Your task to perform on an android device: turn off javascript in the chrome app Image 0: 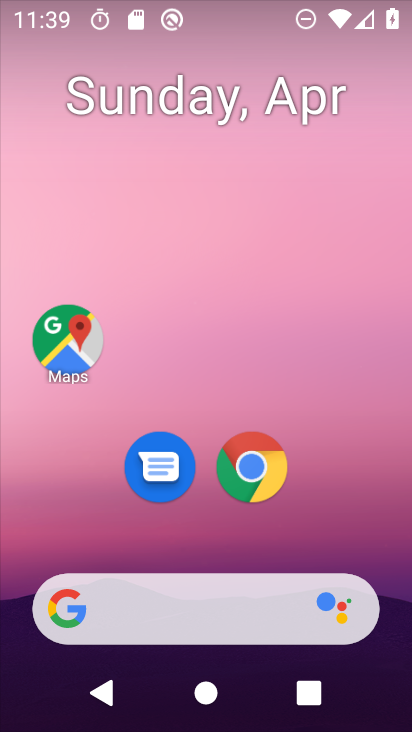
Step 0: drag from (383, 511) to (376, 146)
Your task to perform on an android device: turn off javascript in the chrome app Image 1: 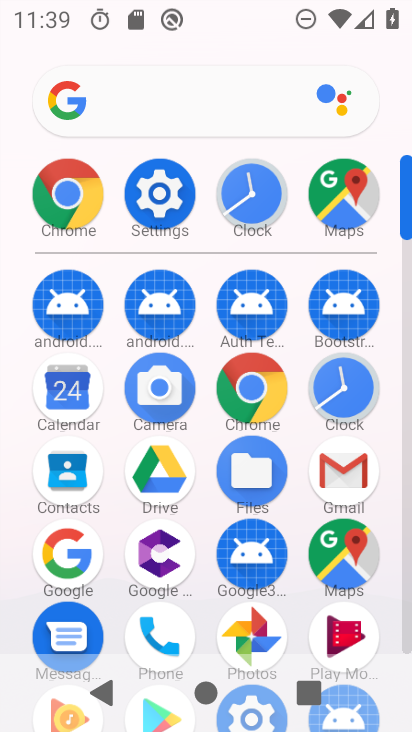
Step 1: click (267, 394)
Your task to perform on an android device: turn off javascript in the chrome app Image 2: 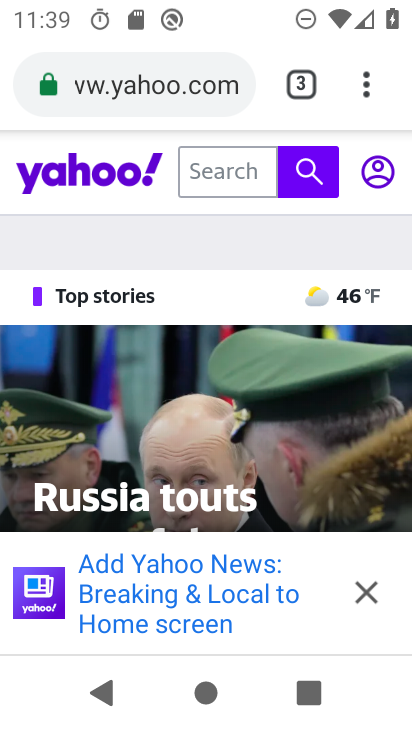
Step 2: click (368, 72)
Your task to perform on an android device: turn off javascript in the chrome app Image 3: 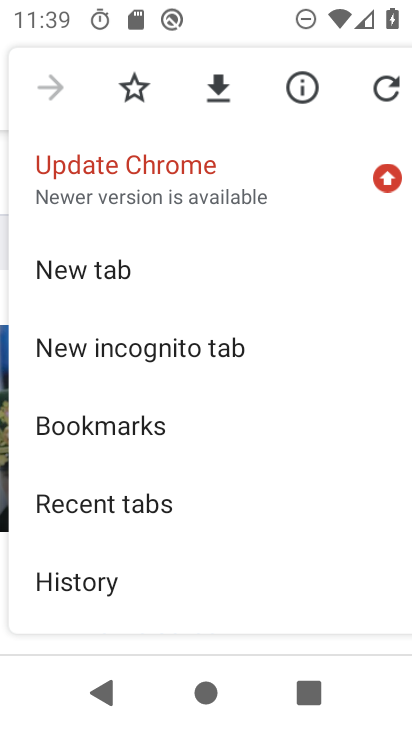
Step 3: drag from (330, 521) to (318, 395)
Your task to perform on an android device: turn off javascript in the chrome app Image 4: 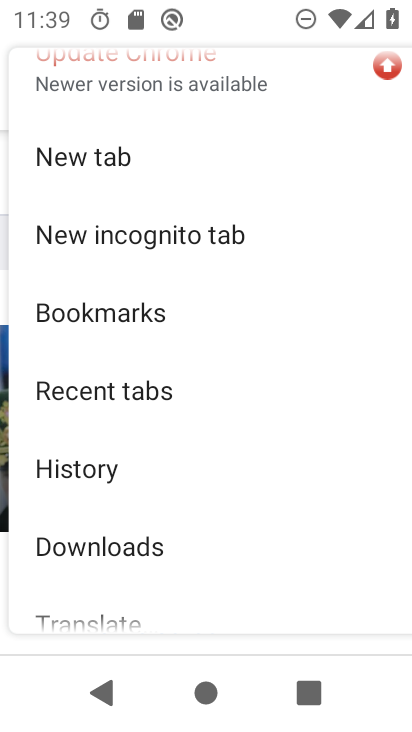
Step 4: drag from (337, 537) to (340, 422)
Your task to perform on an android device: turn off javascript in the chrome app Image 5: 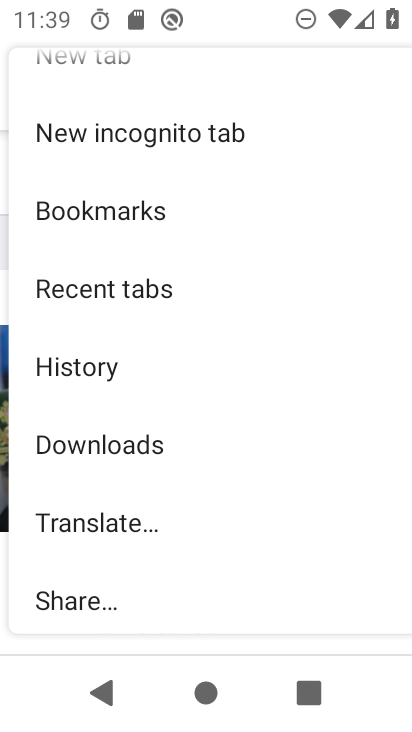
Step 5: drag from (325, 537) to (333, 419)
Your task to perform on an android device: turn off javascript in the chrome app Image 6: 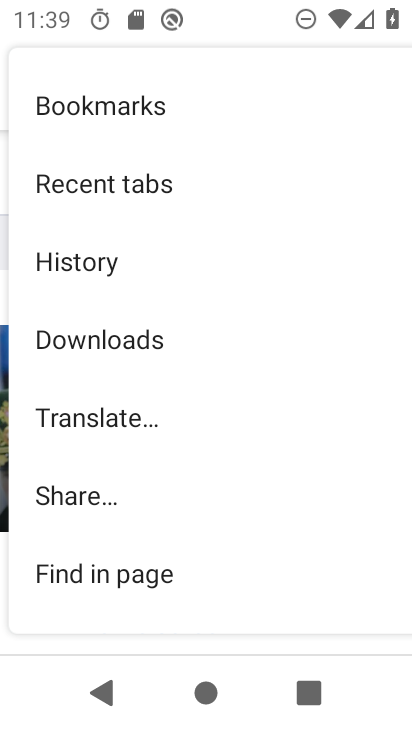
Step 6: drag from (315, 565) to (316, 413)
Your task to perform on an android device: turn off javascript in the chrome app Image 7: 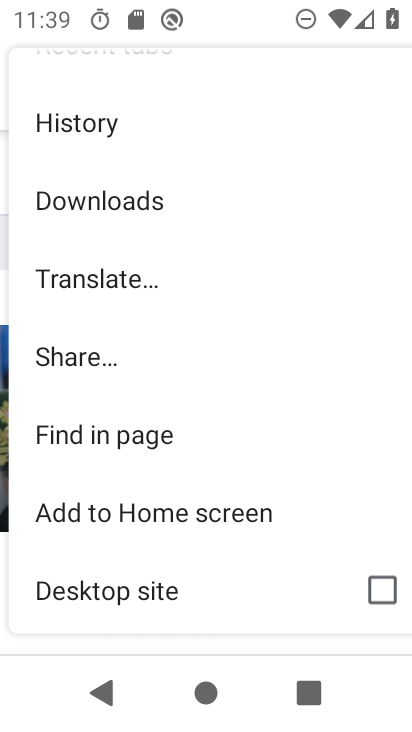
Step 7: drag from (280, 570) to (279, 370)
Your task to perform on an android device: turn off javascript in the chrome app Image 8: 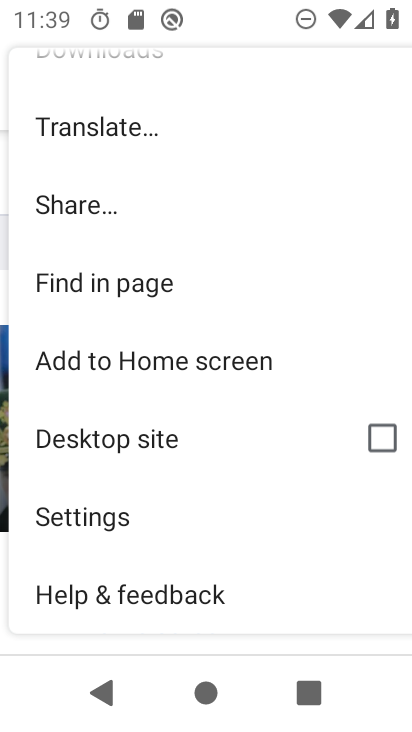
Step 8: click (114, 534)
Your task to perform on an android device: turn off javascript in the chrome app Image 9: 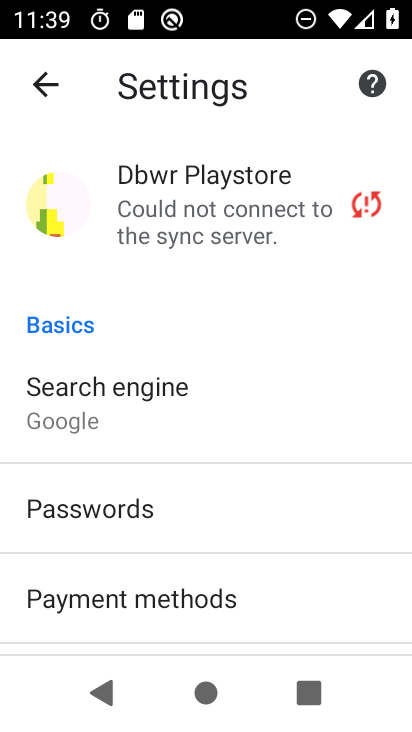
Step 9: drag from (281, 556) to (298, 372)
Your task to perform on an android device: turn off javascript in the chrome app Image 10: 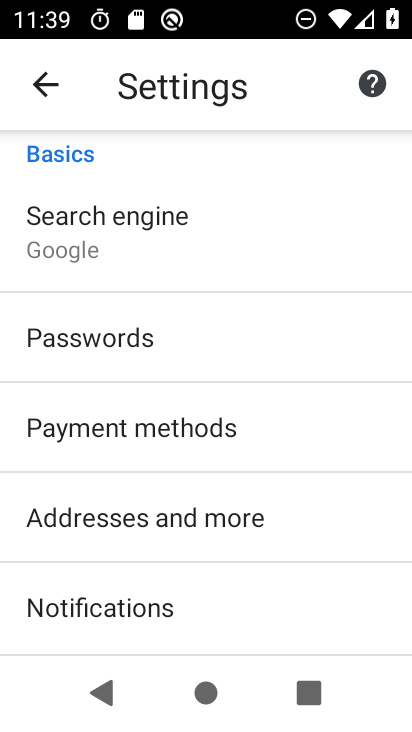
Step 10: drag from (307, 597) to (319, 407)
Your task to perform on an android device: turn off javascript in the chrome app Image 11: 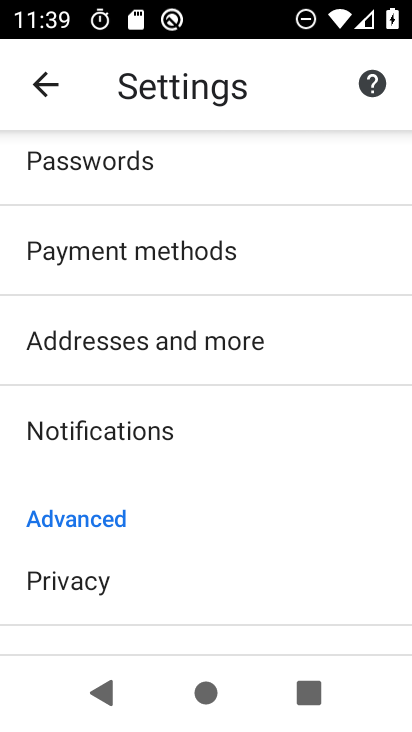
Step 11: drag from (298, 562) to (341, 361)
Your task to perform on an android device: turn off javascript in the chrome app Image 12: 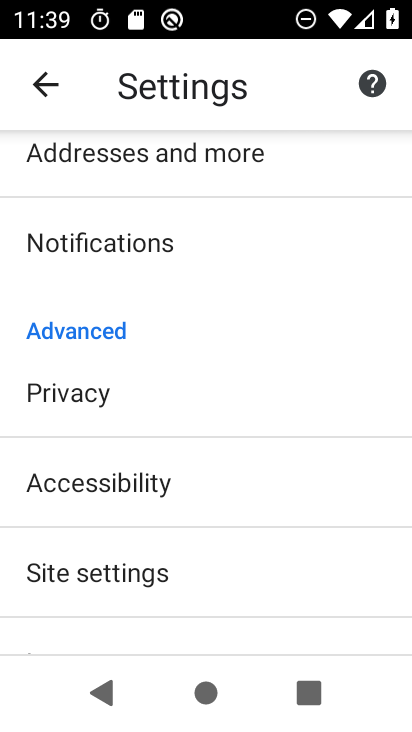
Step 12: drag from (292, 568) to (292, 441)
Your task to perform on an android device: turn off javascript in the chrome app Image 13: 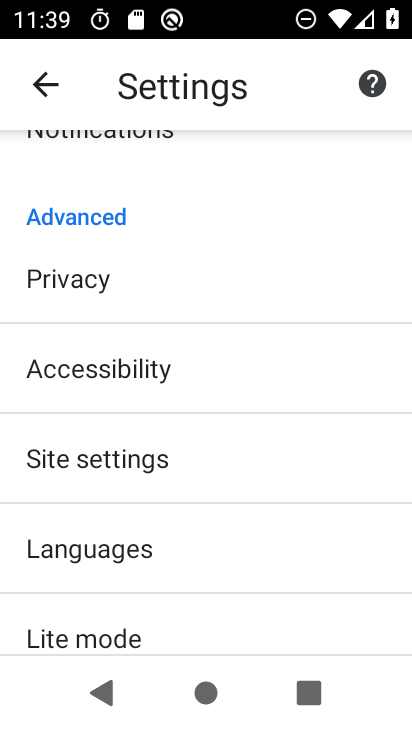
Step 13: click (273, 475)
Your task to perform on an android device: turn off javascript in the chrome app Image 14: 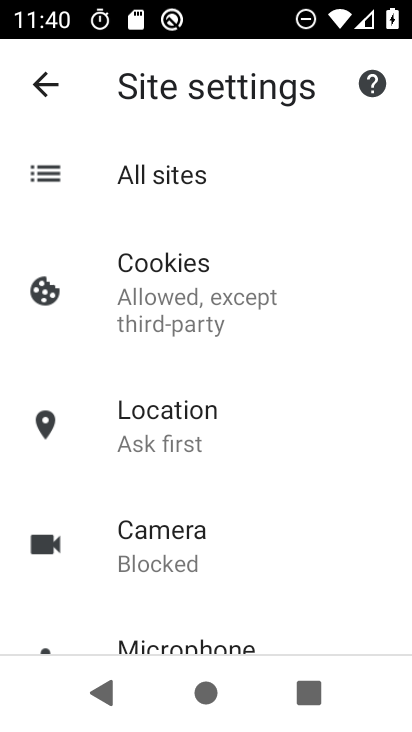
Step 14: drag from (291, 570) to (308, 412)
Your task to perform on an android device: turn off javascript in the chrome app Image 15: 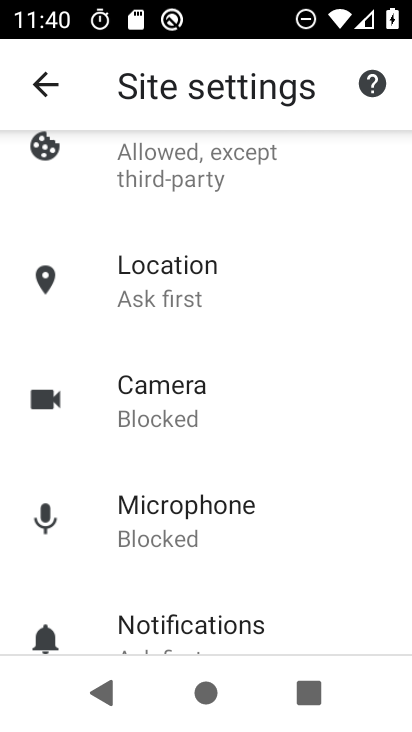
Step 15: drag from (324, 578) to (324, 395)
Your task to perform on an android device: turn off javascript in the chrome app Image 16: 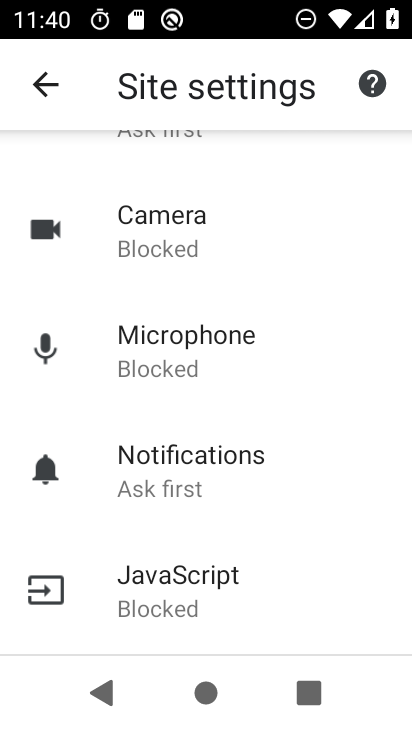
Step 16: drag from (326, 576) to (333, 374)
Your task to perform on an android device: turn off javascript in the chrome app Image 17: 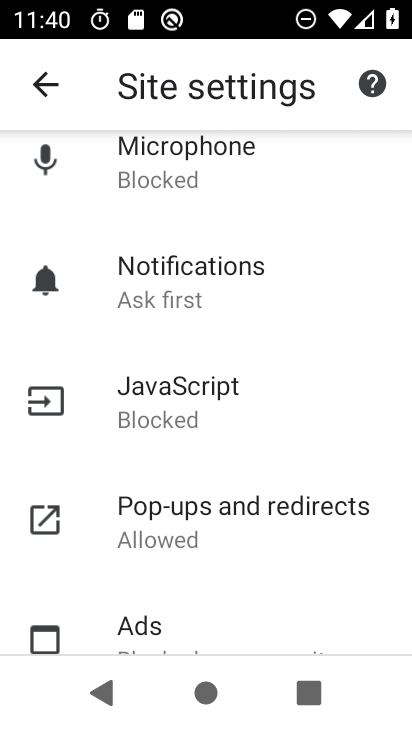
Step 17: drag from (318, 588) to (315, 449)
Your task to perform on an android device: turn off javascript in the chrome app Image 18: 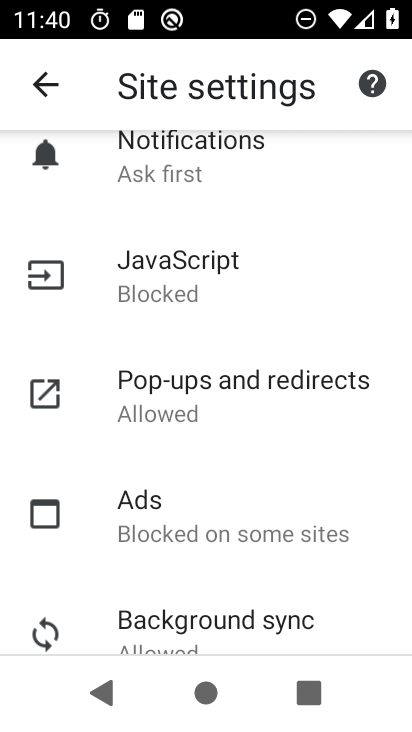
Step 18: click (176, 265)
Your task to perform on an android device: turn off javascript in the chrome app Image 19: 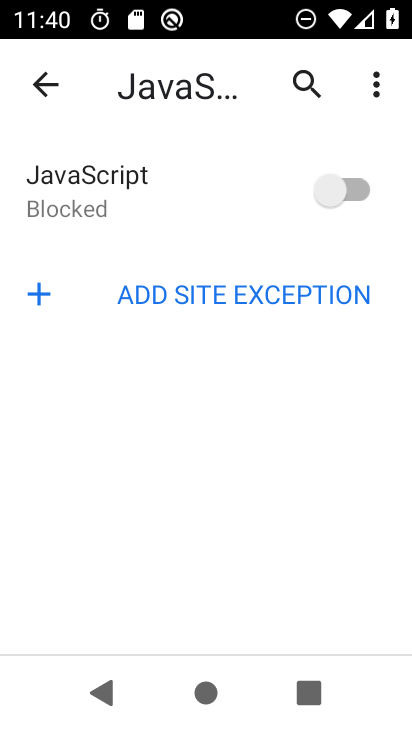
Step 19: task complete